Your task to perform on an android device: Open Chrome and go to settings Image 0: 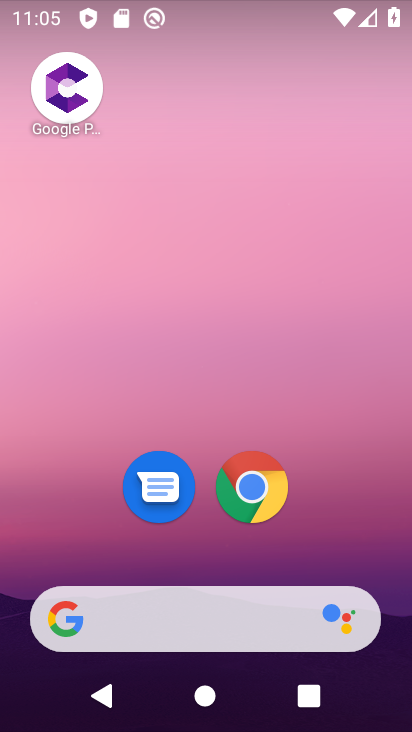
Step 0: click (245, 503)
Your task to perform on an android device: Open Chrome and go to settings Image 1: 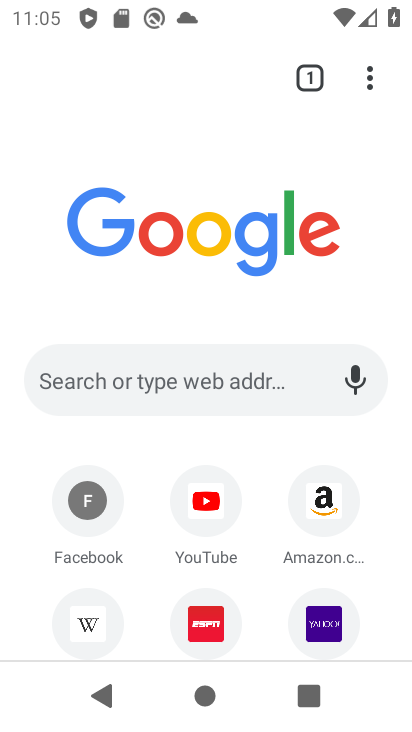
Step 1: click (370, 80)
Your task to perform on an android device: Open Chrome and go to settings Image 2: 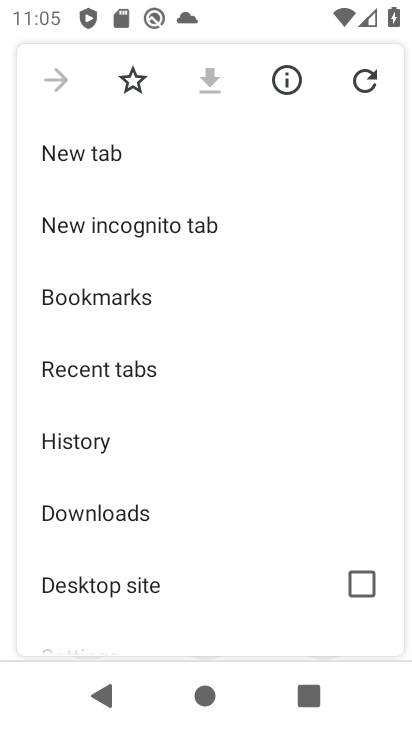
Step 2: drag from (189, 569) to (291, 184)
Your task to perform on an android device: Open Chrome and go to settings Image 3: 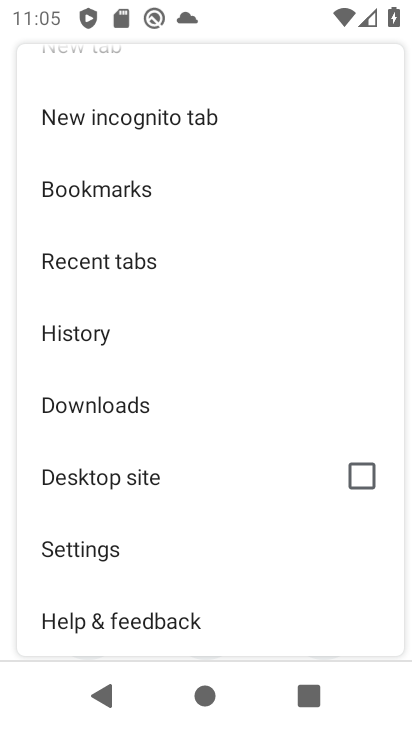
Step 3: click (152, 546)
Your task to perform on an android device: Open Chrome and go to settings Image 4: 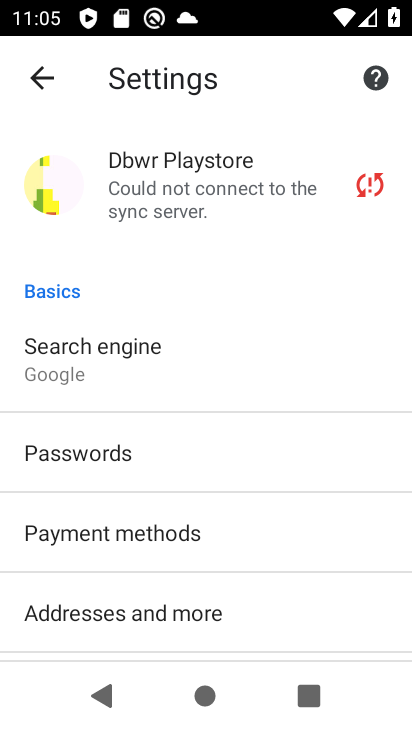
Step 4: task complete